Your task to perform on an android device: Go to notification settings Image 0: 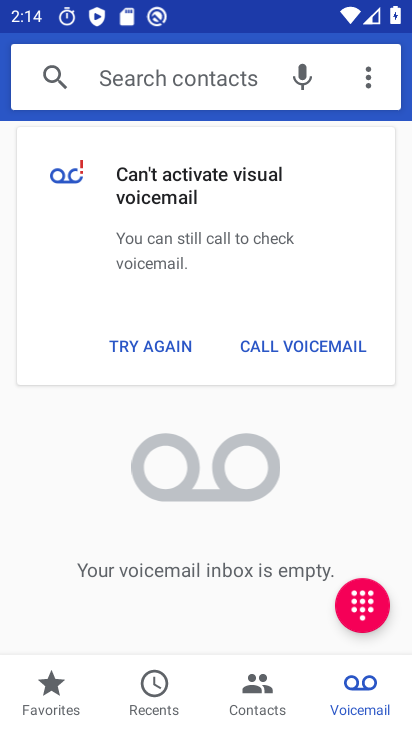
Step 0: press home button
Your task to perform on an android device: Go to notification settings Image 1: 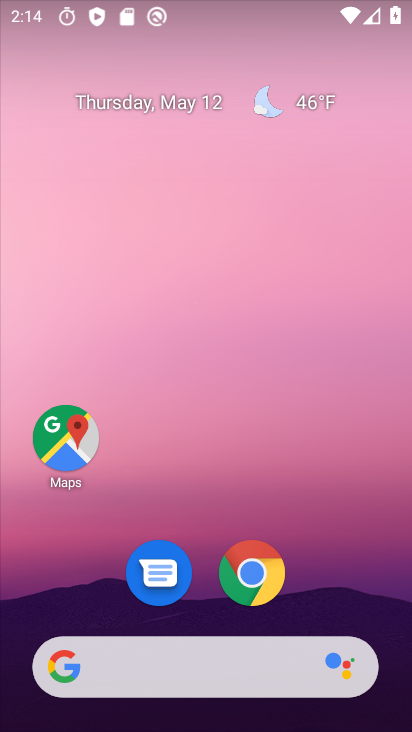
Step 1: drag from (207, 609) to (221, 67)
Your task to perform on an android device: Go to notification settings Image 2: 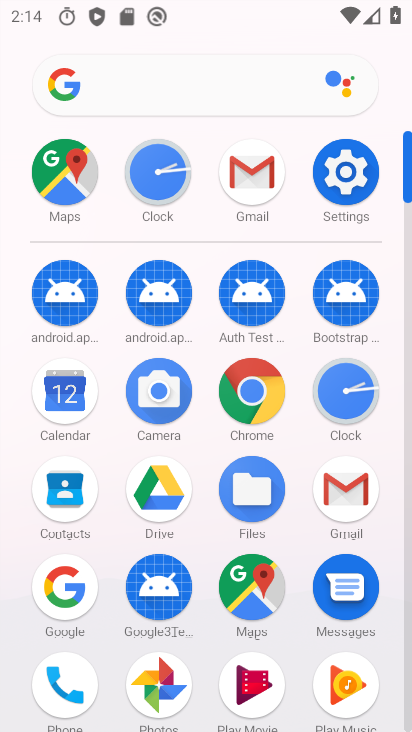
Step 2: click (360, 168)
Your task to perform on an android device: Go to notification settings Image 3: 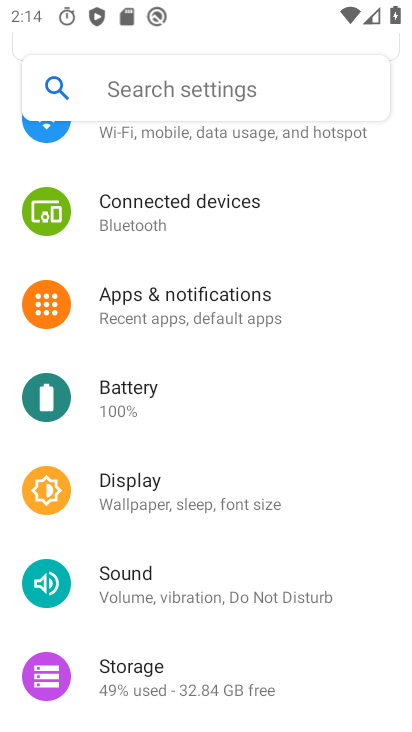
Step 3: click (208, 294)
Your task to perform on an android device: Go to notification settings Image 4: 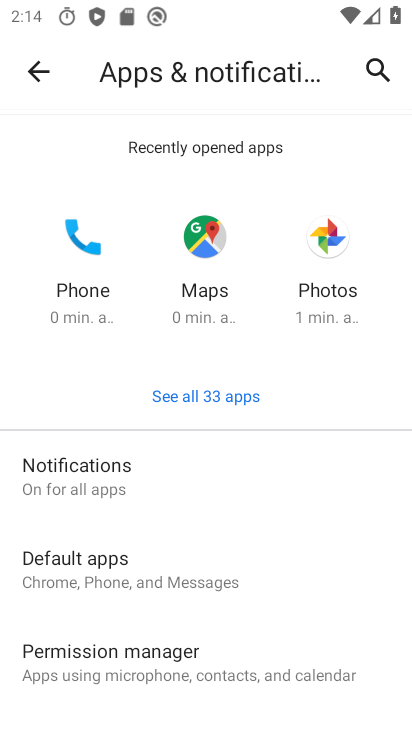
Step 4: task complete